Your task to perform on an android device: Is it going to rain today? Image 0: 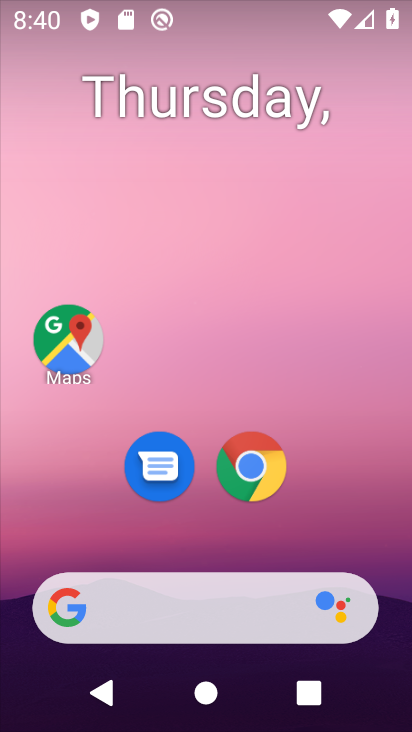
Step 0: press home button
Your task to perform on an android device: Is it going to rain today? Image 1: 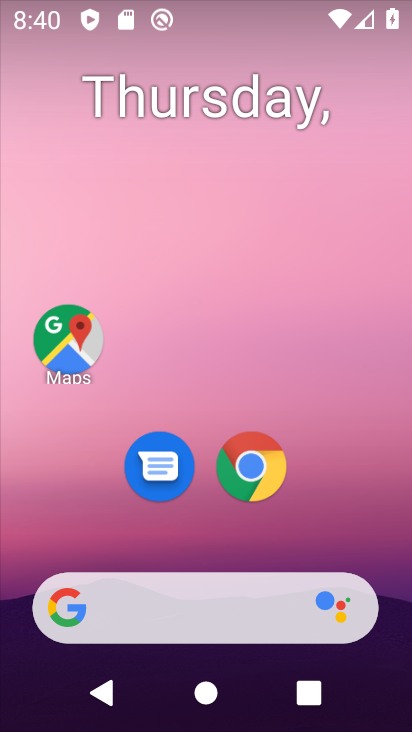
Step 1: click (71, 606)
Your task to perform on an android device: Is it going to rain today? Image 2: 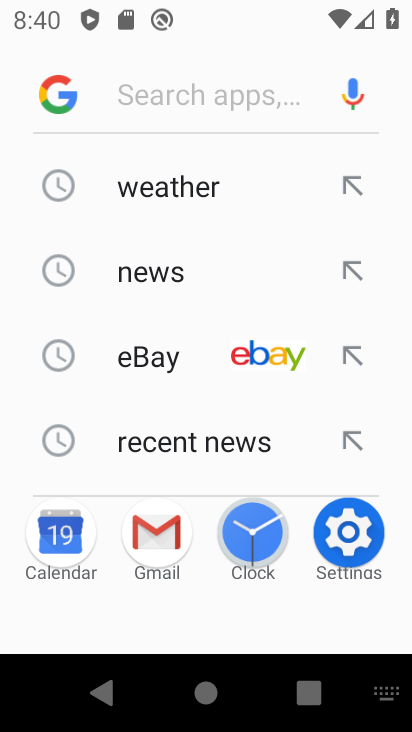
Step 2: click (172, 194)
Your task to perform on an android device: Is it going to rain today? Image 3: 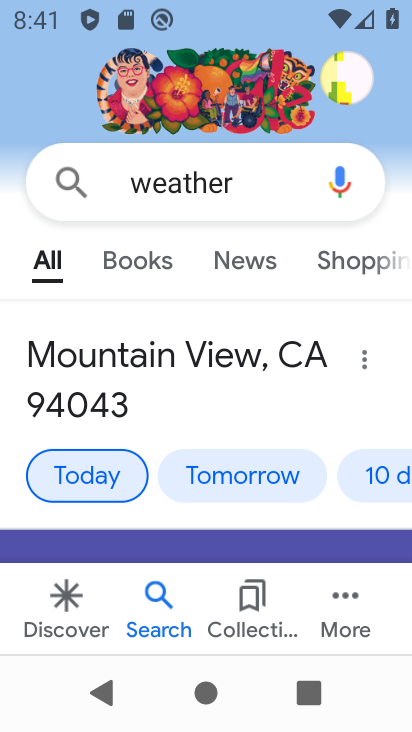
Step 3: task complete